Your task to perform on an android device: Open Google Chrome Image 0: 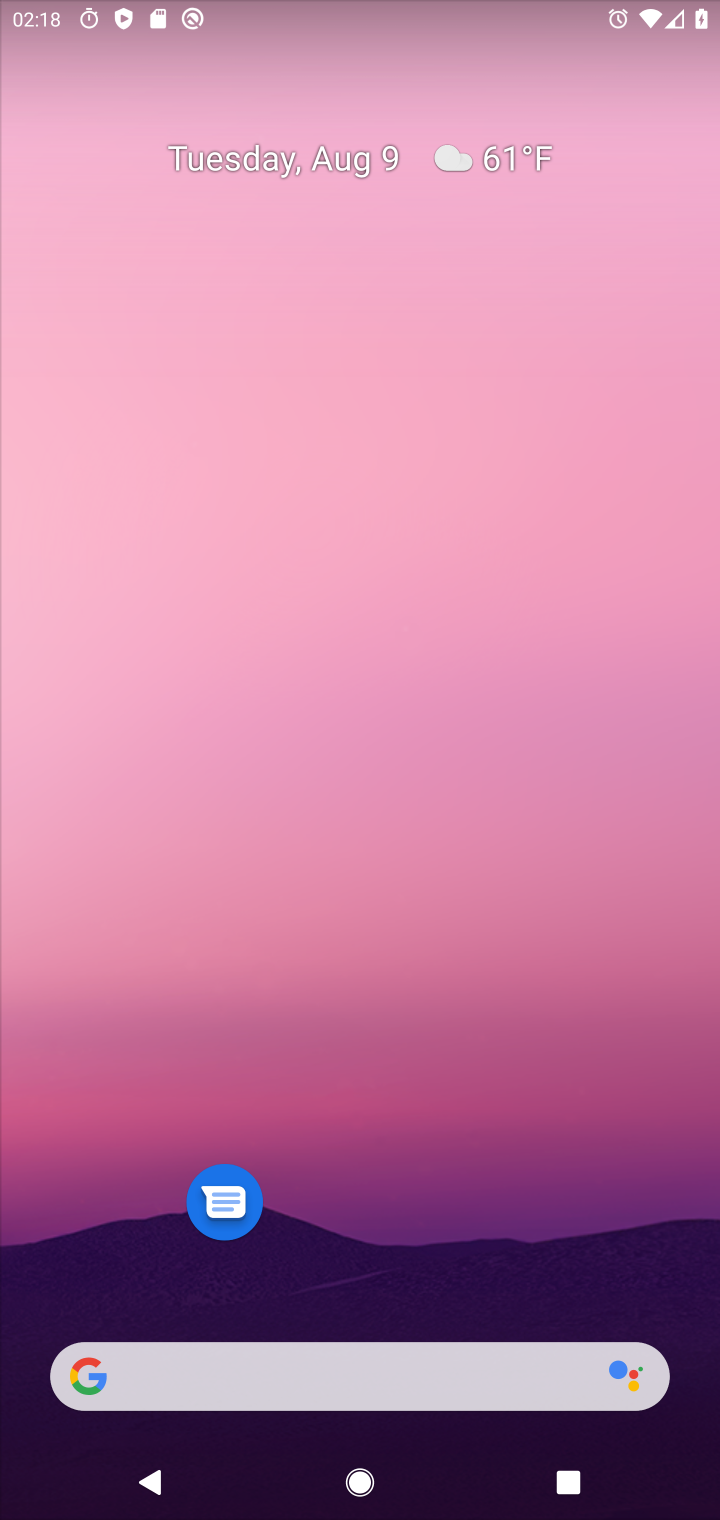
Step 0: drag from (205, 1384) to (417, 24)
Your task to perform on an android device: Open Google Chrome Image 1: 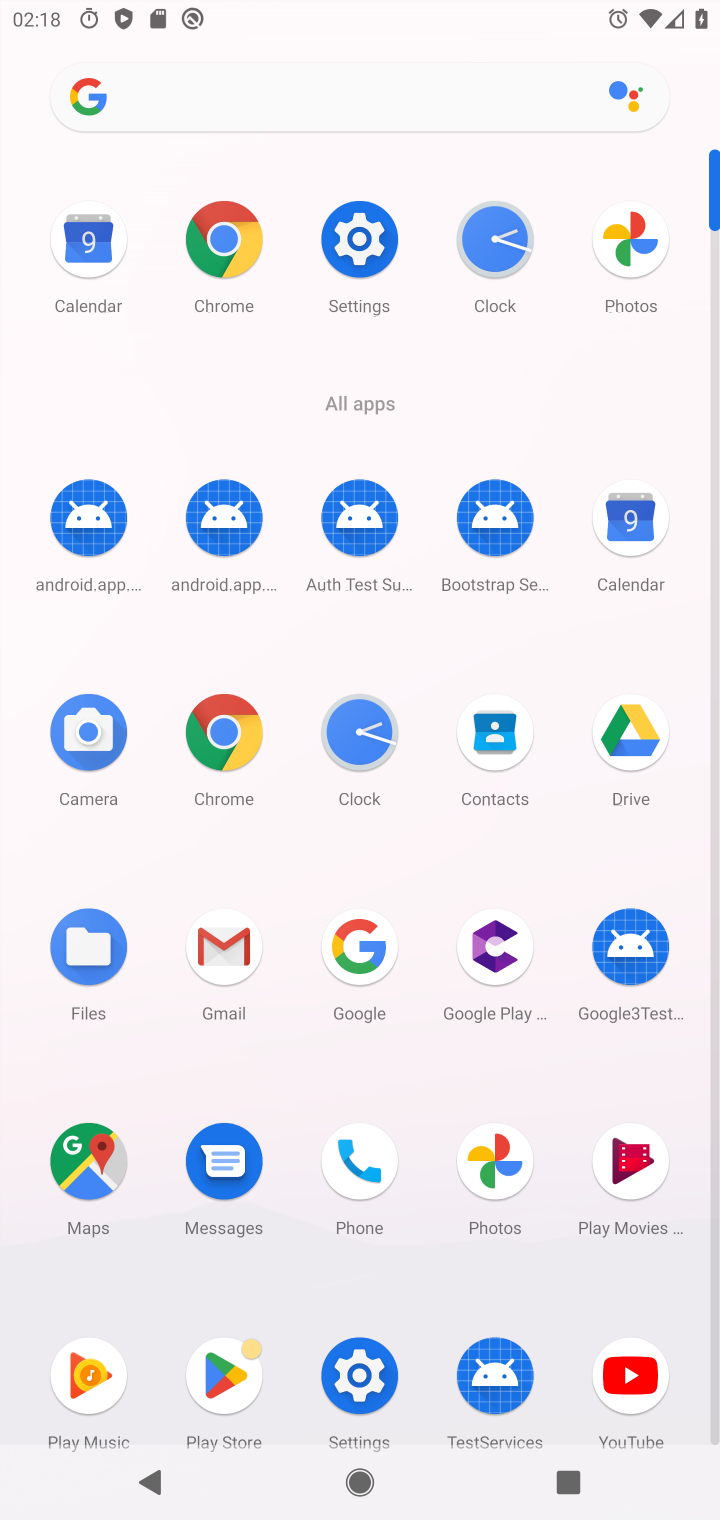
Step 1: click (234, 732)
Your task to perform on an android device: Open Google Chrome Image 2: 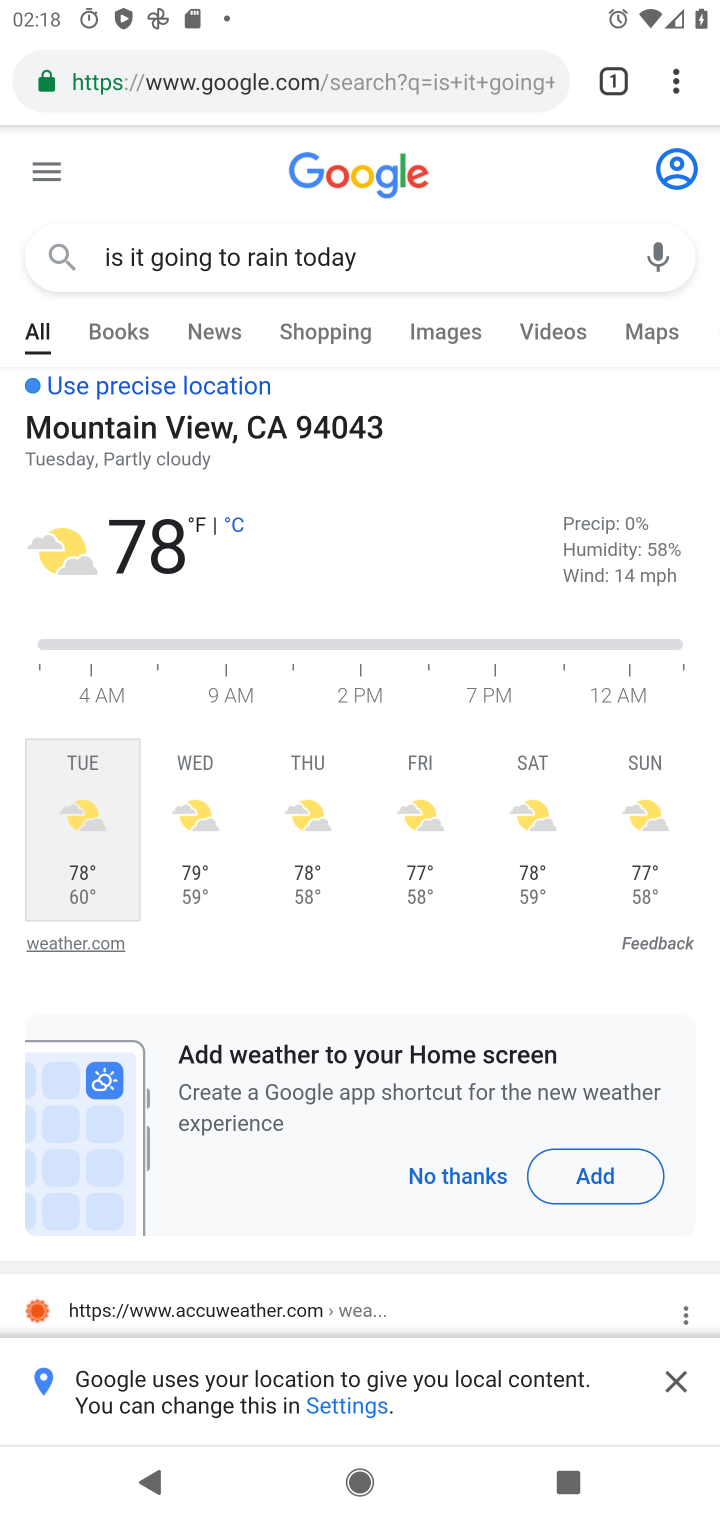
Step 2: task complete